Your task to perform on an android device: install app "Messenger Lite" Image 0: 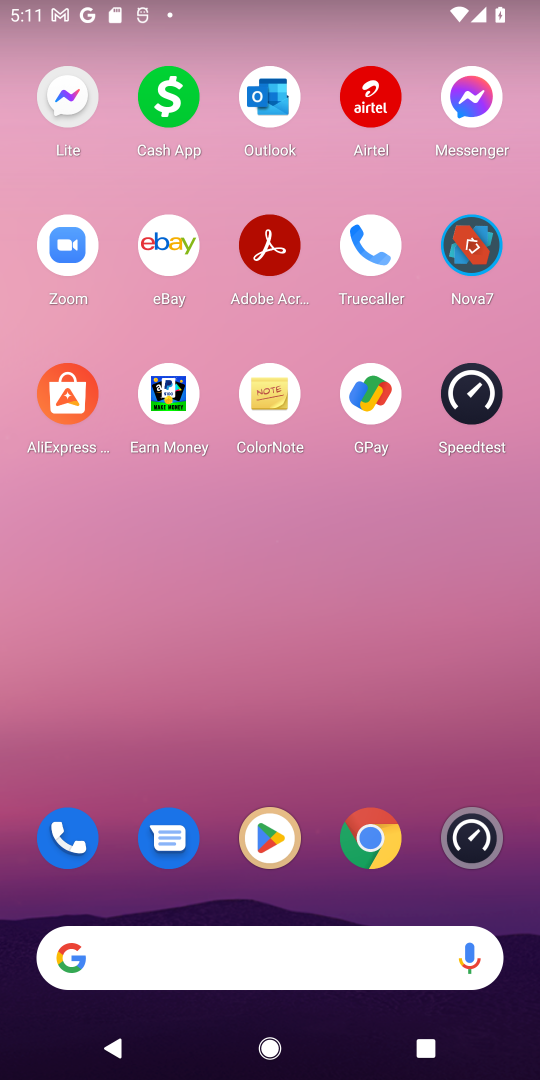
Step 0: drag from (175, 975) to (302, 98)
Your task to perform on an android device: install app "Messenger Lite" Image 1: 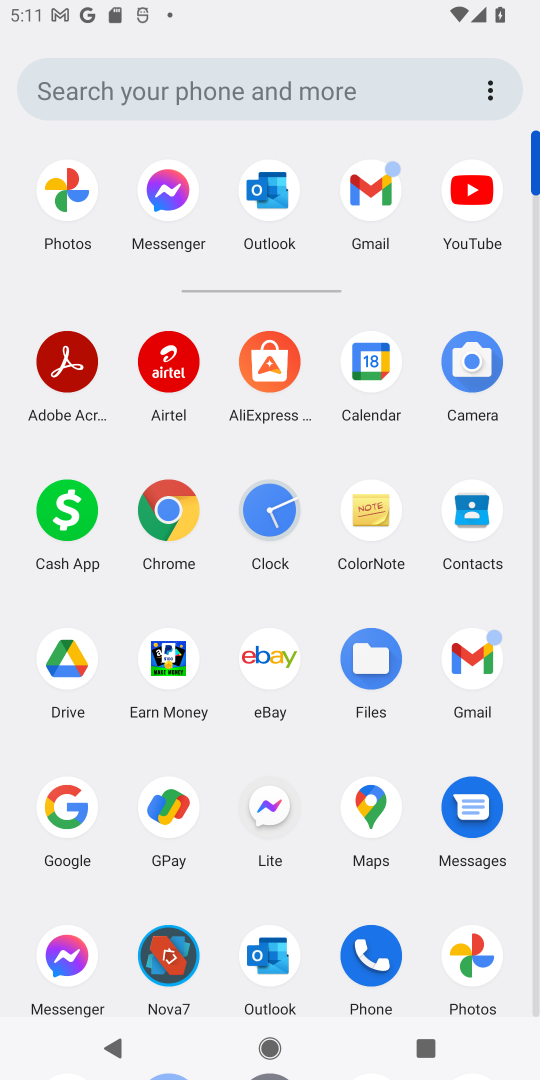
Step 1: drag from (295, 851) to (343, 289)
Your task to perform on an android device: install app "Messenger Lite" Image 2: 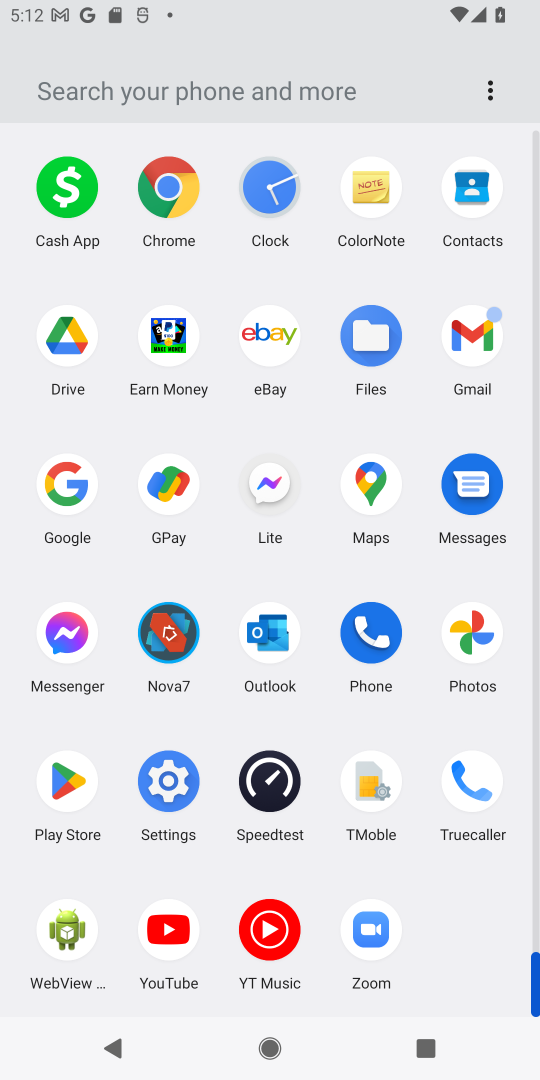
Step 2: click (68, 783)
Your task to perform on an android device: install app "Messenger Lite" Image 3: 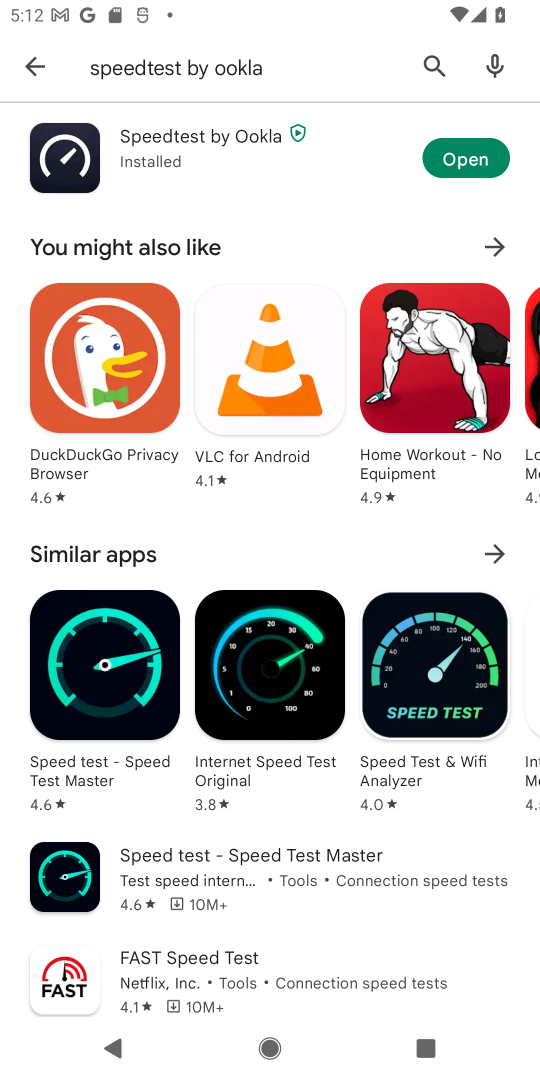
Step 3: press back button
Your task to perform on an android device: install app "Messenger Lite" Image 4: 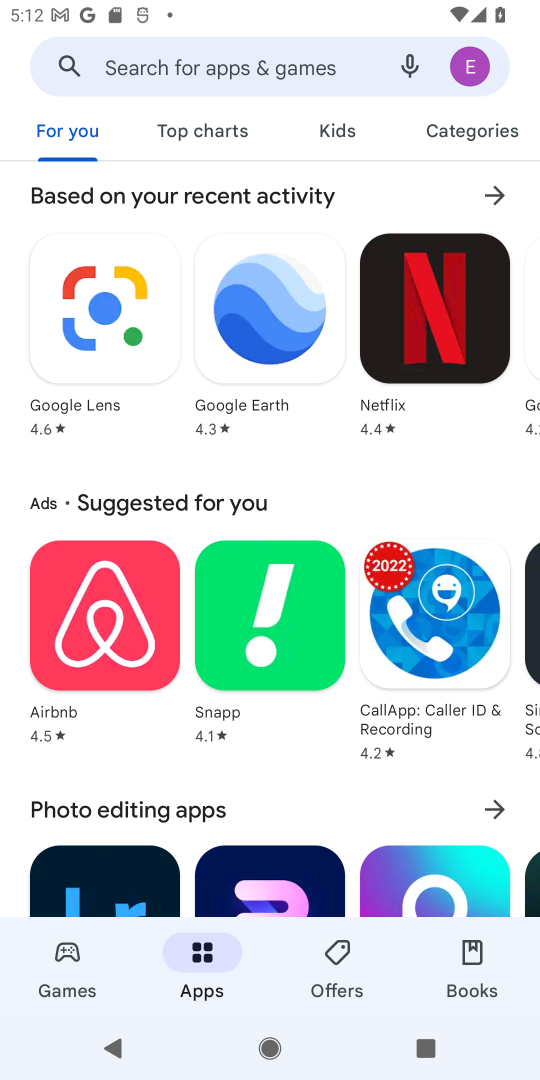
Step 4: click (288, 57)
Your task to perform on an android device: install app "Messenger Lite" Image 5: 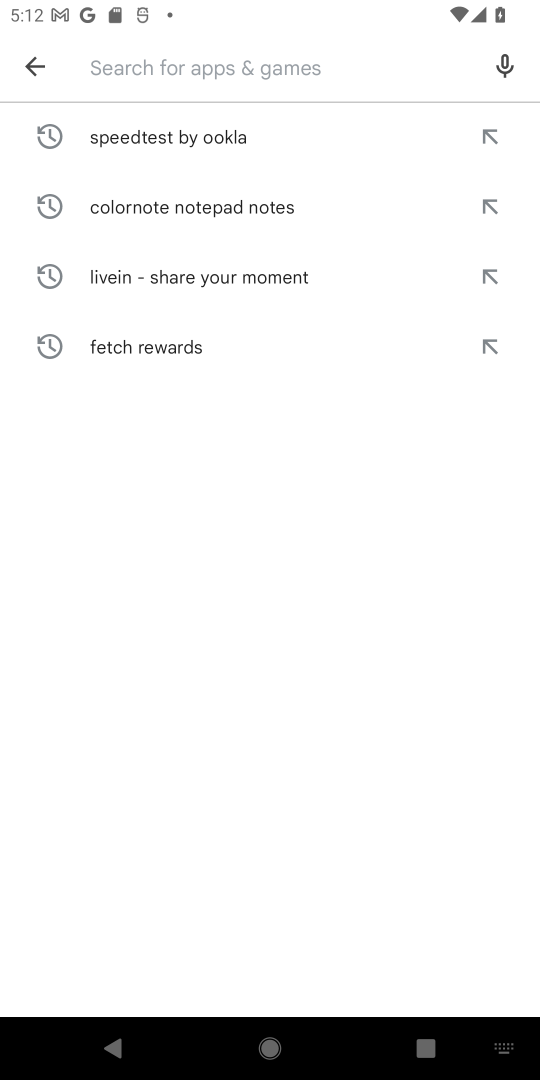
Step 5: type "Messenger Lite"
Your task to perform on an android device: install app "Messenger Lite" Image 6: 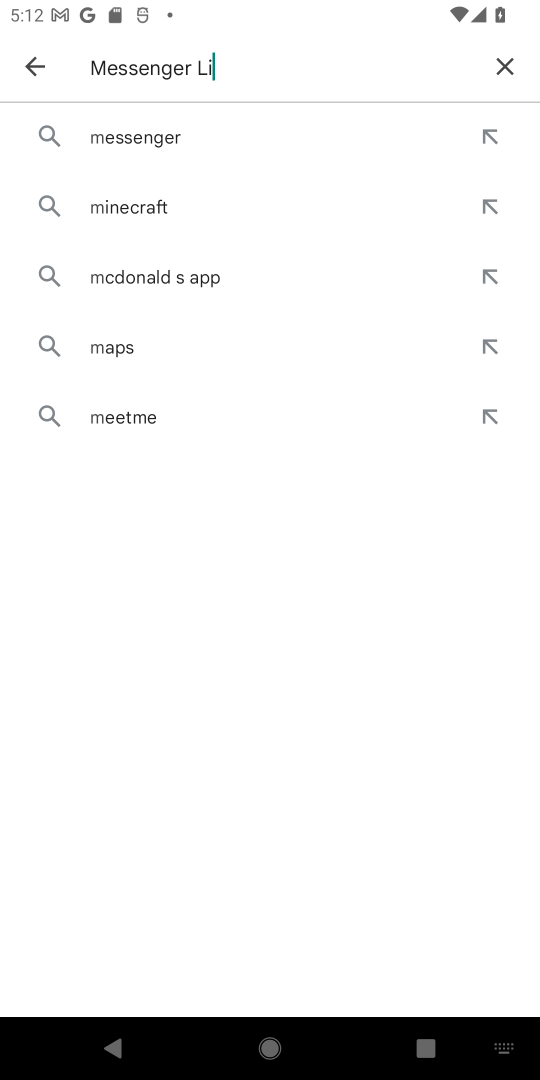
Step 6: type ""
Your task to perform on an android device: install app "Messenger Lite" Image 7: 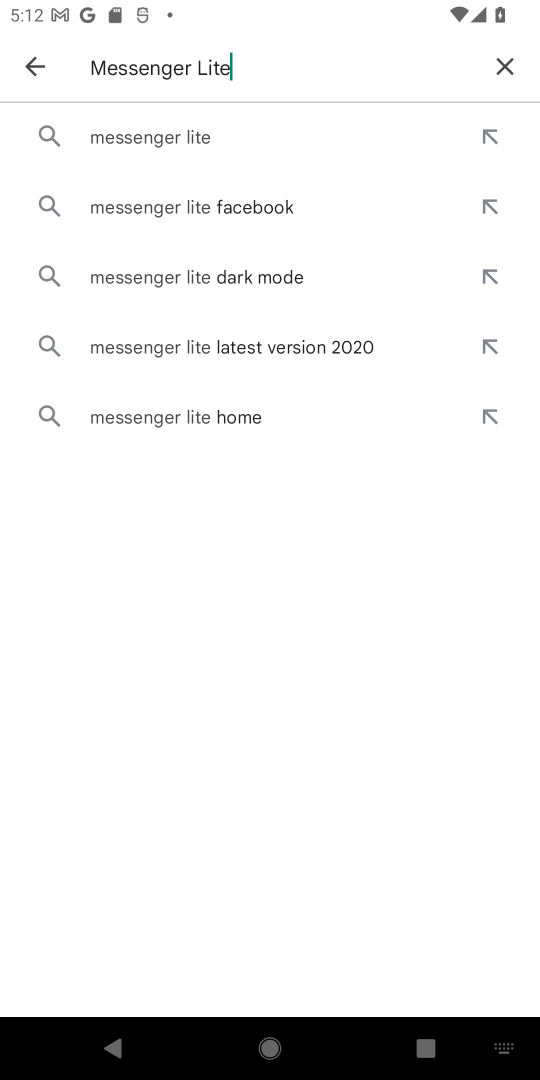
Step 7: click (215, 150)
Your task to perform on an android device: install app "Messenger Lite" Image 8: 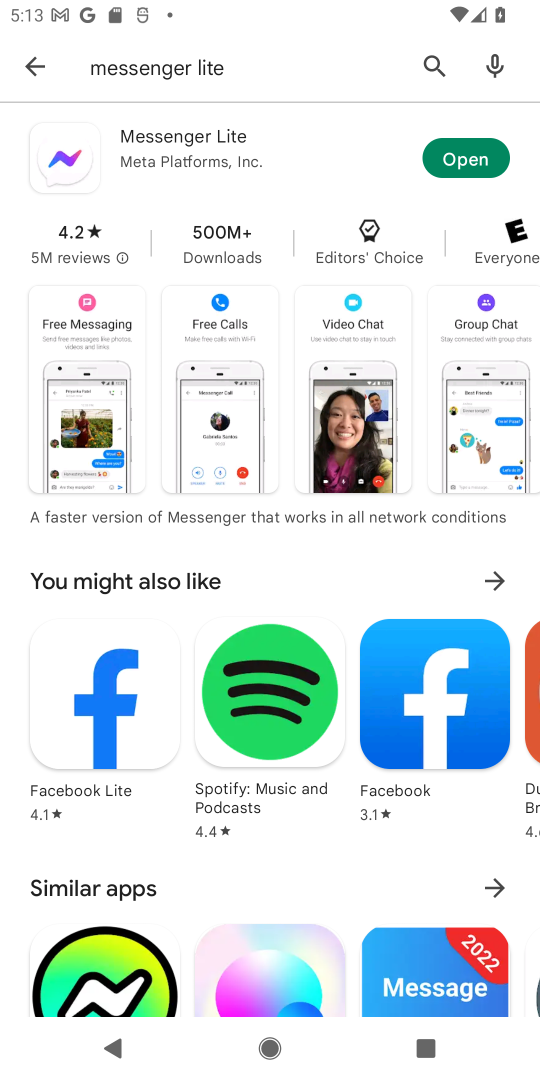
Step 8: task complete